Your task to perform on an android device: check google app version Image 0: 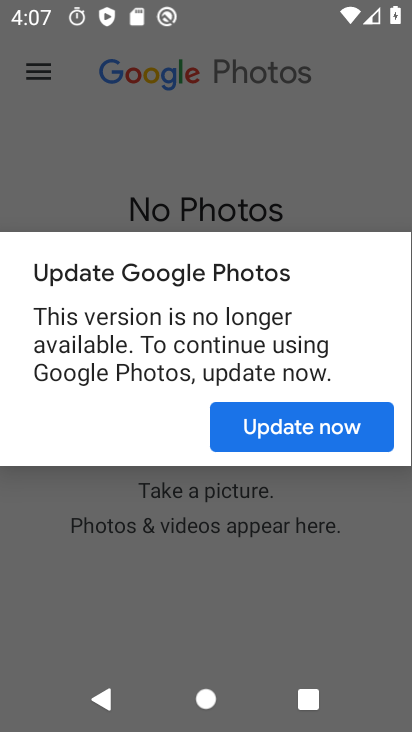
Step 0: press home button
Your task to perform on an android device: check google app version Image 1: 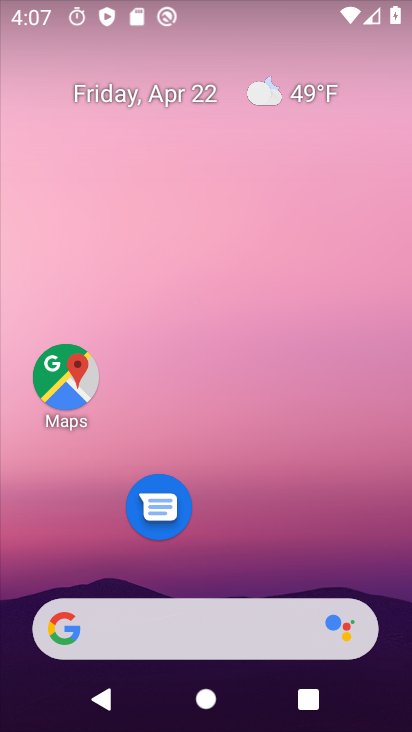
Step 1: drag from (204, 432) to (262, 28)
Your task to perform on an android device: check google app version Image 2: 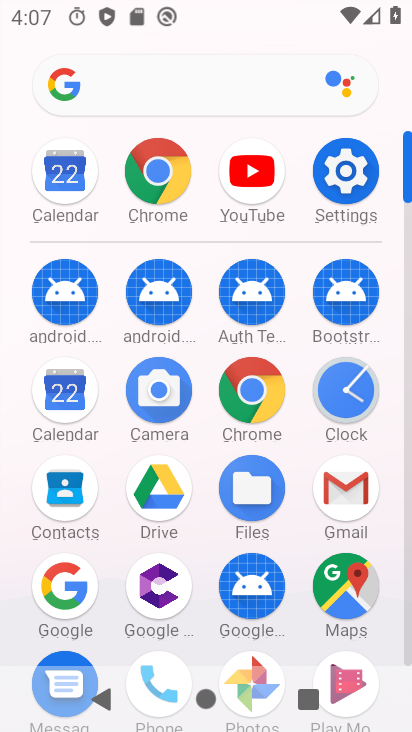
Step 2: click (59, 592)
Your task to perform on an android device: check google app version Image 3: 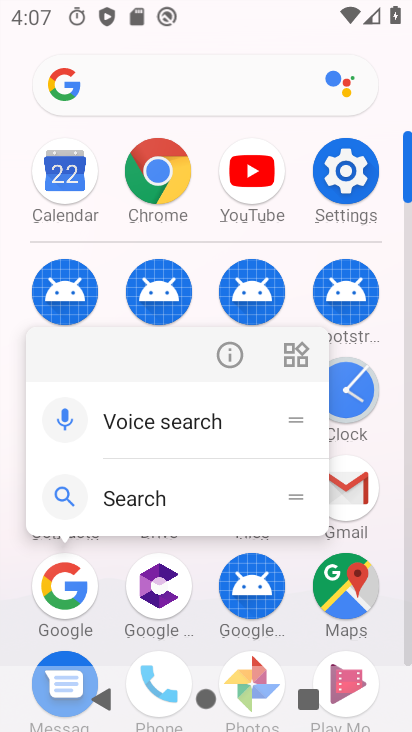
Step 3: click (236, 349)
Your task to perform on an android device: check google app version Image 4: 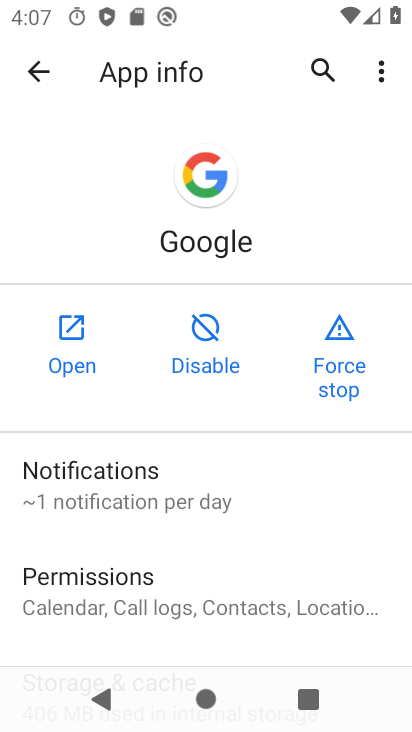
Step 4: drag from (170, 580) to (265, 55)
Your task to perform on an android device: check google app version Image 5: 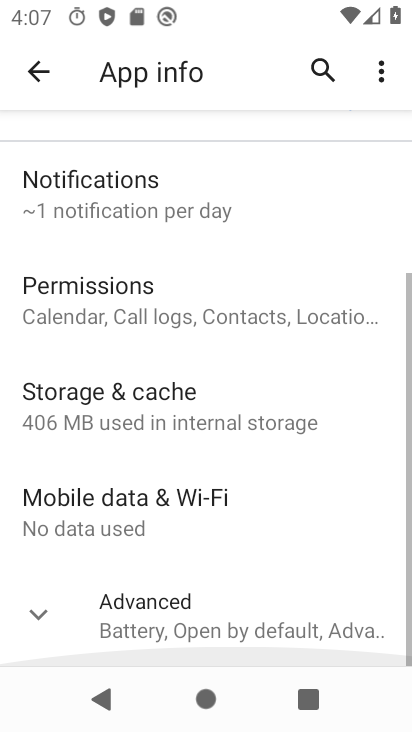
Step 5: drag from (195, 587) to (316, 11)
Your task to perform on an android device: check google app version Image 6: 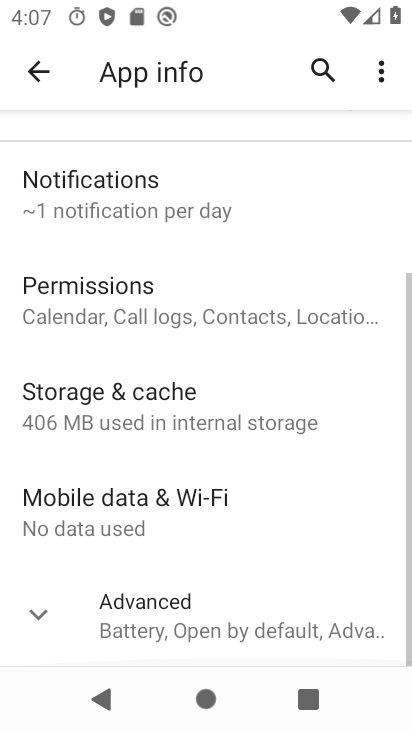
Step 6: click (170, 608)
Your task to perform on an android device: check google app version Image 7: 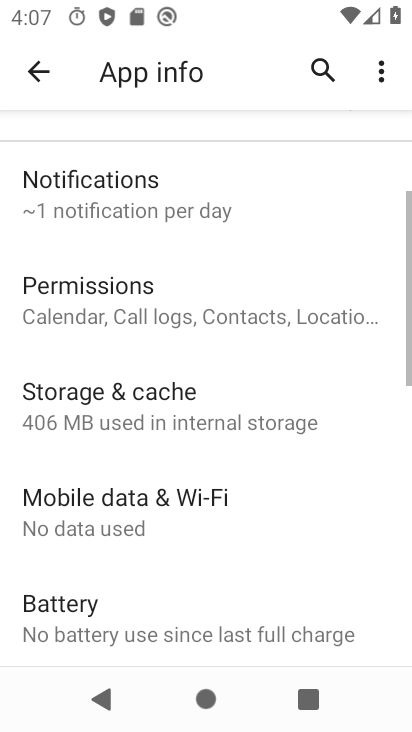
Step 7: task complete